Your task to perform on an android device: toggle translation in the chrome app Image 0: 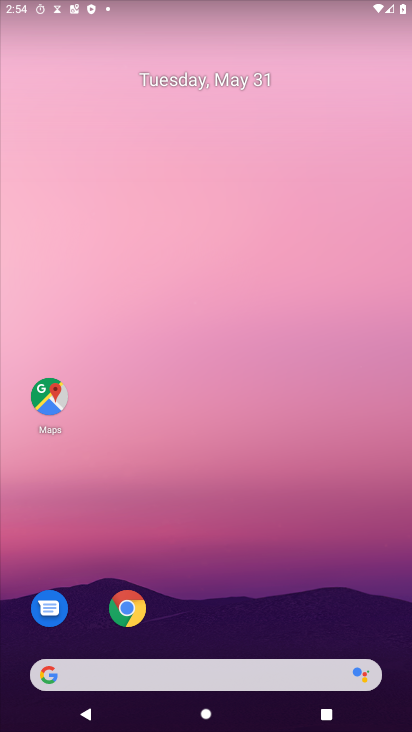
Step 0: drag from (236, 641) to (290, 119)
Your task to perform on an android device: toggle translation in the chrome app Image 1: 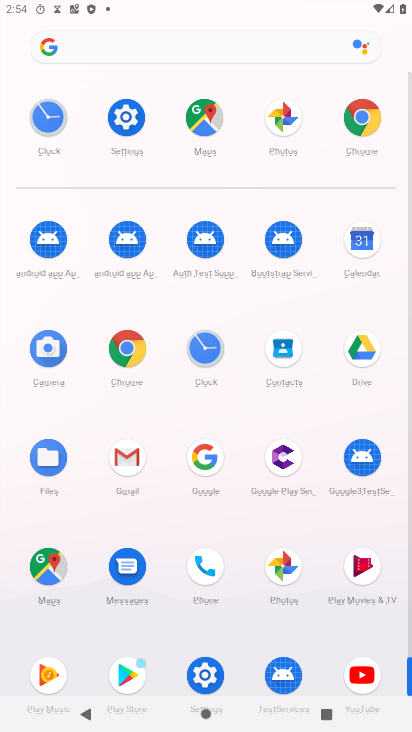
Step 1: click (117, 354)
Your task to perform on an android device: toggle translation in the chrome app Image 2: 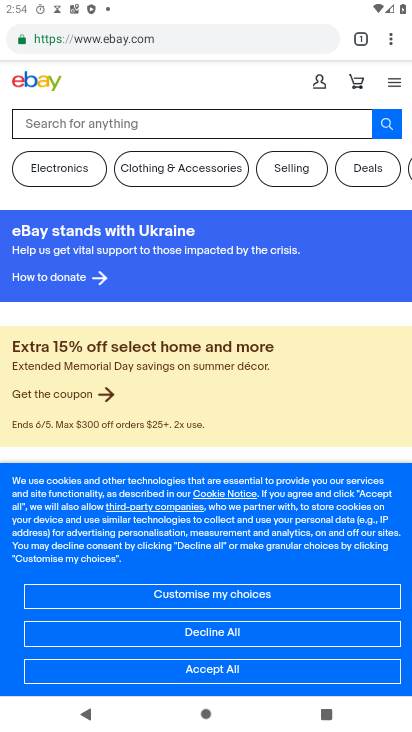
Step 2: click (392, 35)
Your task to perform on an android device: toggle translation in the chrome app Image 3: 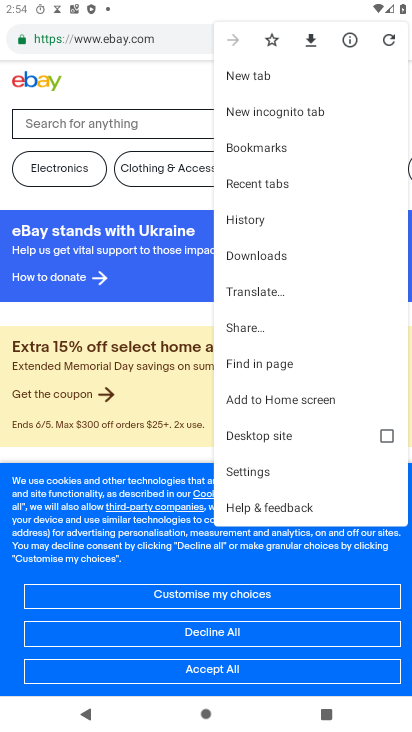
Step 3: click (254, 463)
Your task to perform on an android device: toggle translation in the chrome app Image 4: 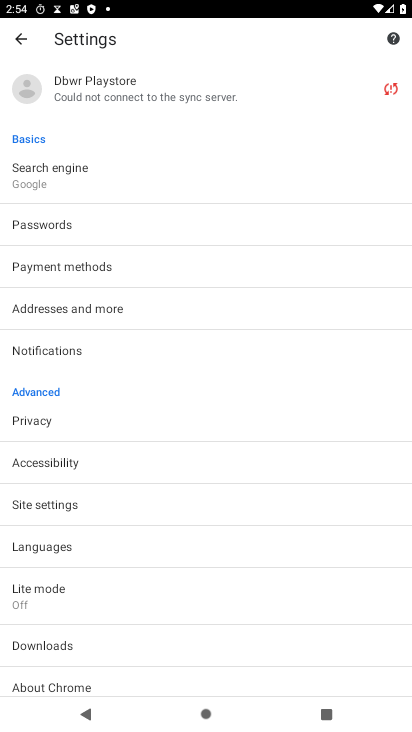
Step 4: click (77, 544)
Your task to perform on an android device: toggle translation in the chrome app Image 5: 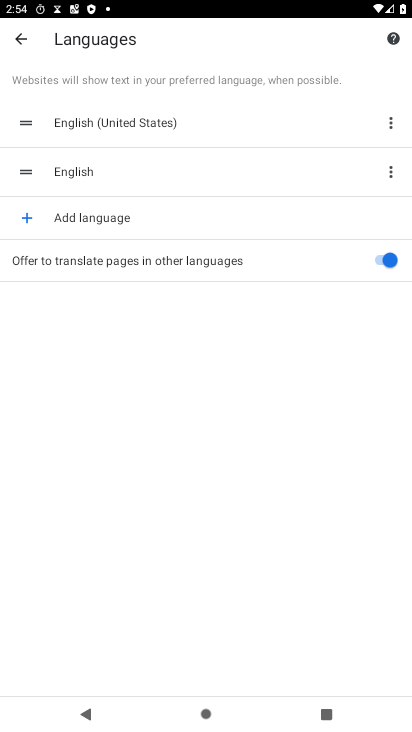
Step 5: click (367, 263)
Your task to perform on an android device: toggle translation in the chrome app Image 6: 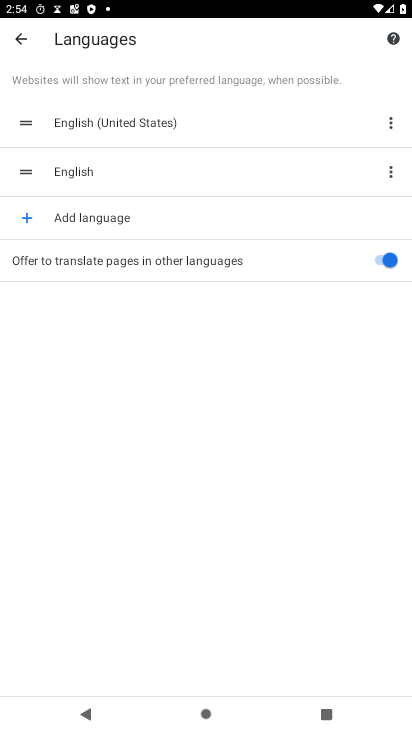
Step 6: task complete